Your task to perform on an android device: turn off data saver in the chrome app Image 0: 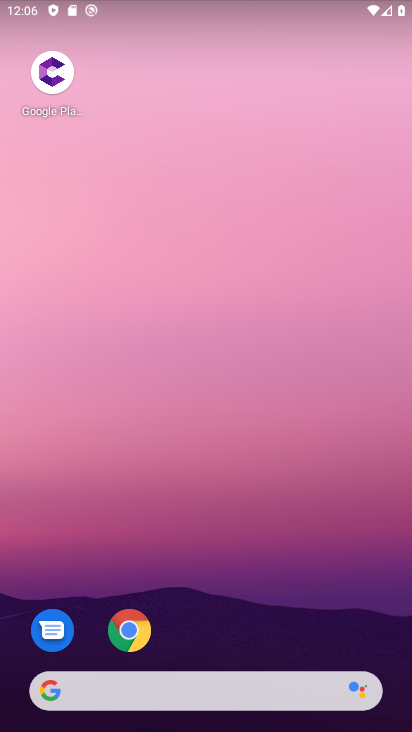
Step 0: click (133, 632)
Your task to perform on an android device: turn off data saver in the chrome app Image 1: 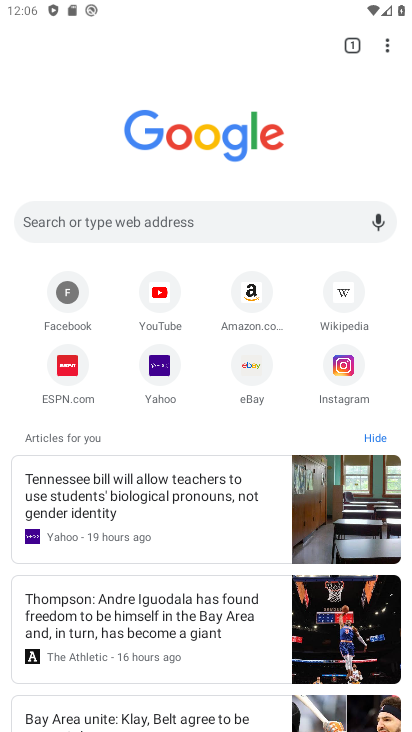
Step 1: click (384, 45)
Your task to perform on an android device: turn off data saver in the chrome app Image 2: 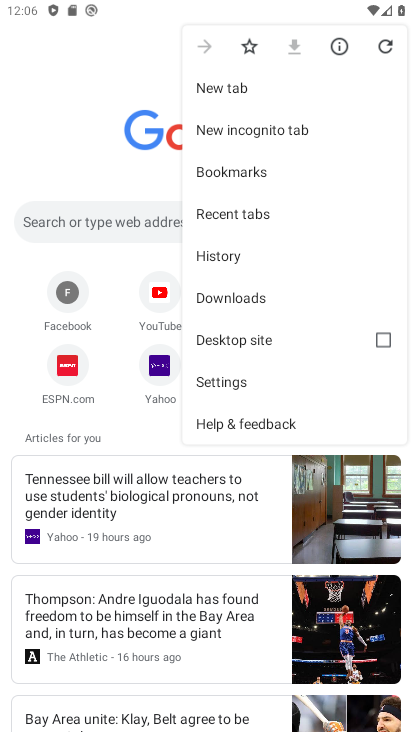
Step 2: click (221, 381)
Your task to perform on an android device: turn off data saver in the chrome app Image 3: 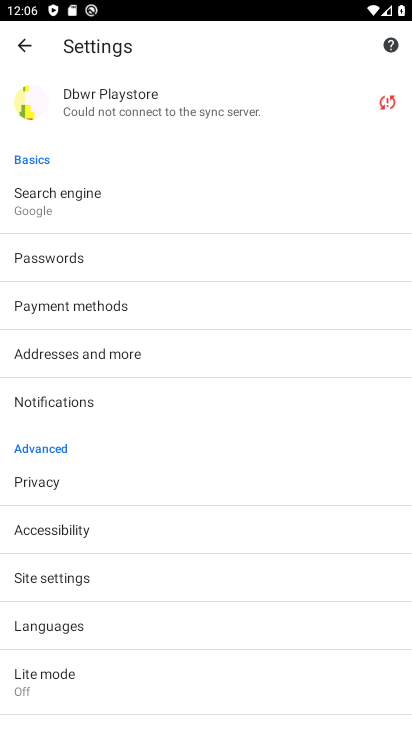
Step 3: click (70, 681)
Your task to perform on an android device: turn off data saver in the chrome app Image 4: 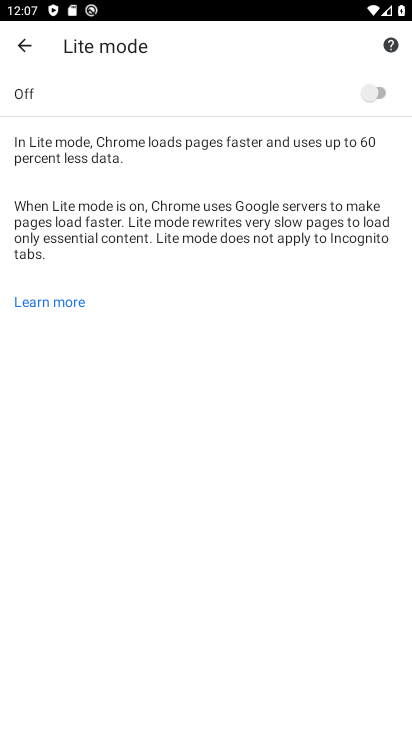
Step 4: task complete